Your task to perform on an android device: open the mobile data screen to see how much data has been used Image 0: 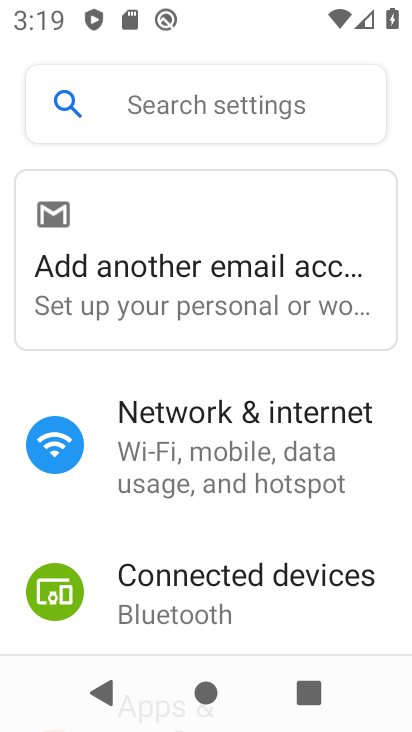
Step 0: press home button
Your task to perform on an android device: open the mobile data screen to see how much data has been used Image 1: 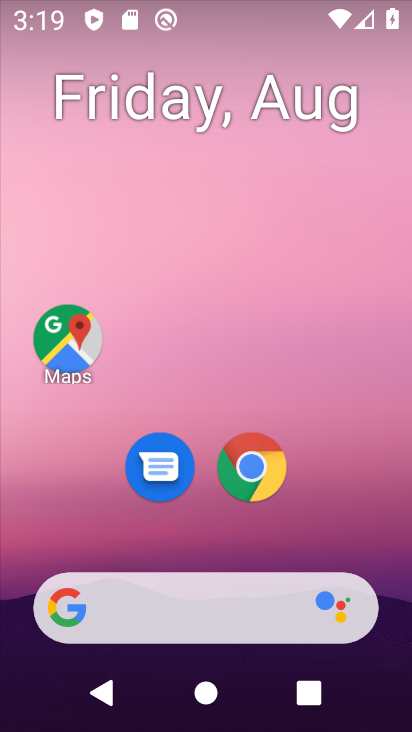
Step 1: drag from (262, 4) to (237, 475)
Your task to perform on an android device: open the mobile data screen to see how much data has been used Image 2: 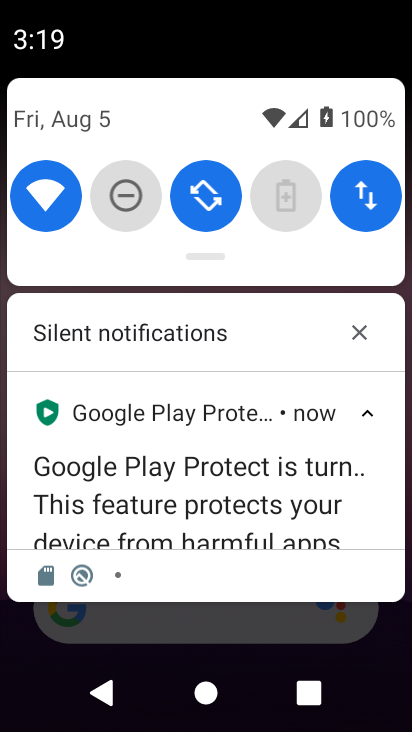
Step 2: click (378, 203)
Your task to perform on an android device: open the mobile data screen to see how much data has been used Image 3: 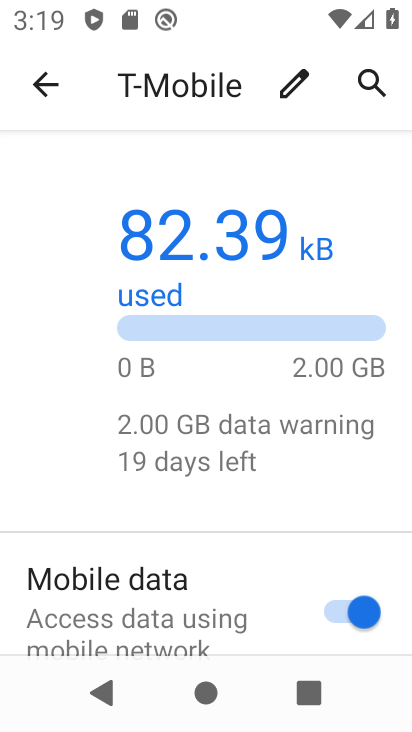
Step 3: task complete